Your task to perform on an android device: install app "Speedtest by Ookla" Image 0: 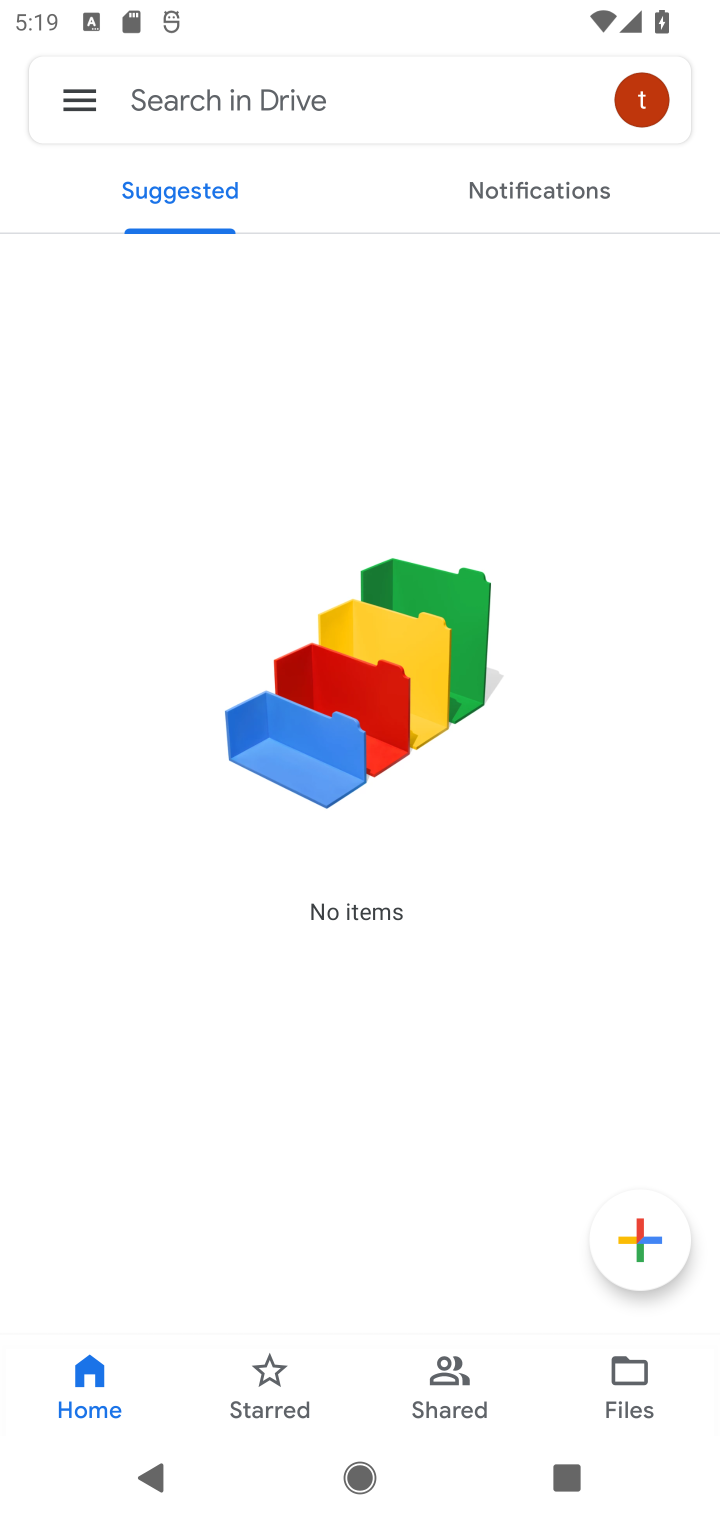
Step 0: press home button
Your task to perform on an android device: install app "Speedtest by Ookla" Image 1: 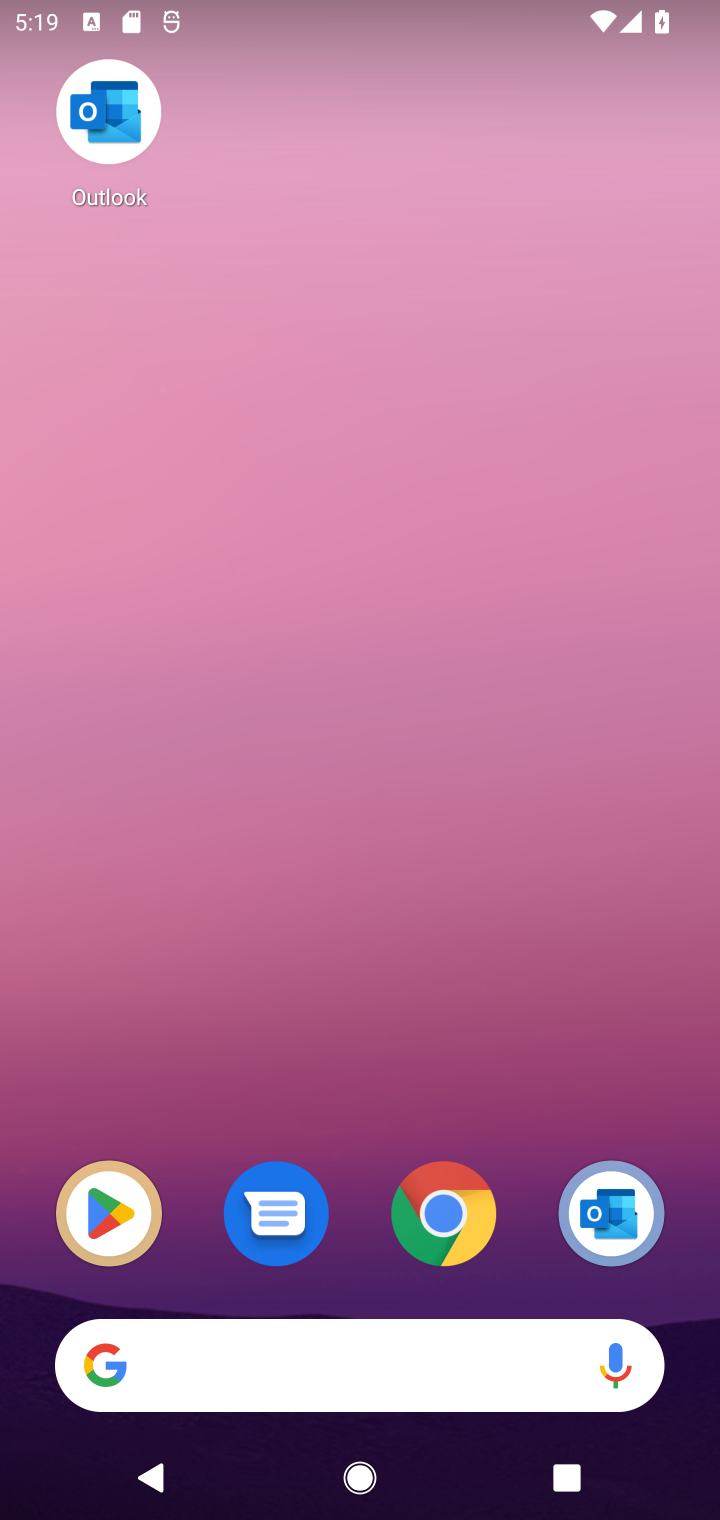
Step 1: drag from (487, 1190) to (638, 160)
Your task to perform on an android device: install app "Speedtest by Ookla" Image 2: 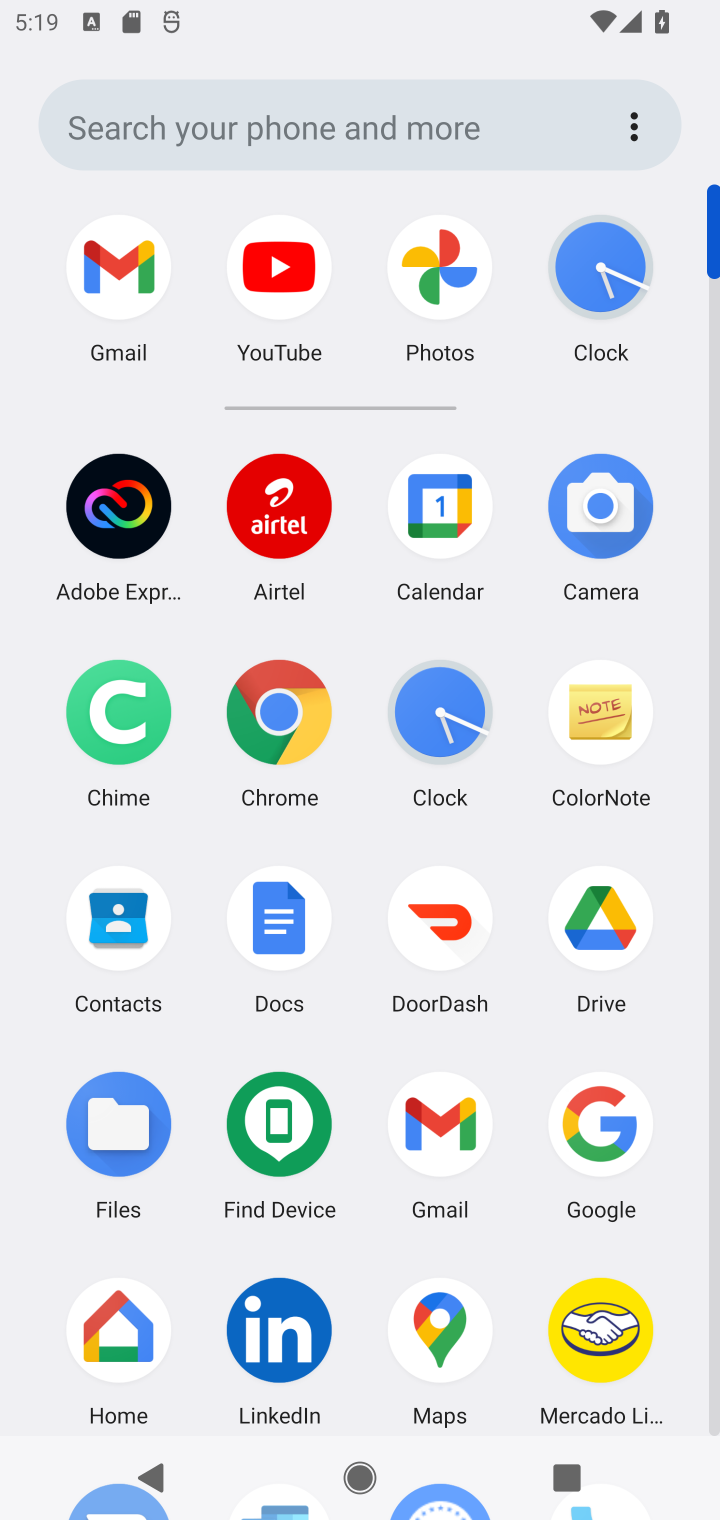
Step 2: drag from (384, 1275) to (390, 855)
Your task to perform on an android device: install app "Speedtest by Ookla" Image 3: 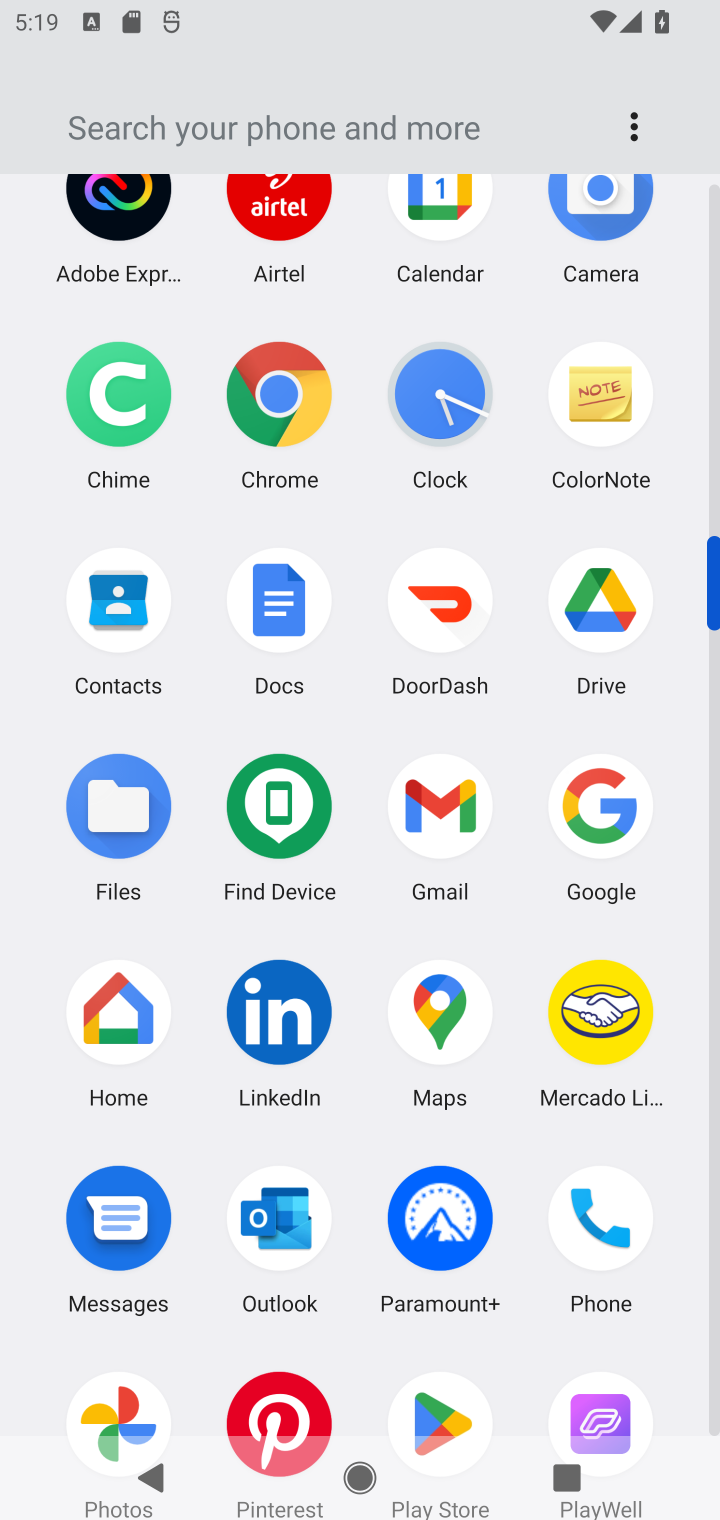
Step 3: click (443, 1405)
Your task to perform on an android device: install app "Speedtest by Ookla" Image 4: 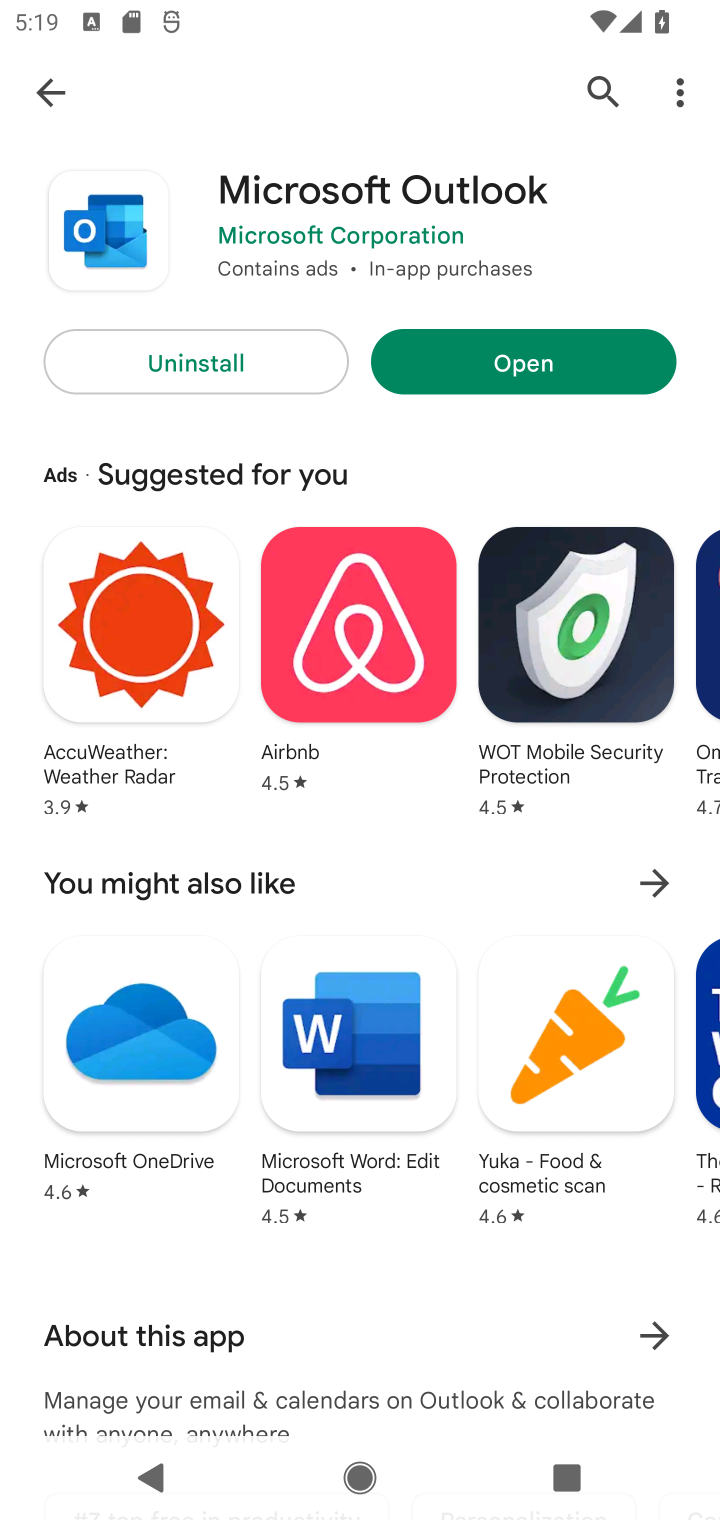
Step 4: click (632, 87)
Your task to perform on an android device: install app "Speedtest by Ookla" Image 5: 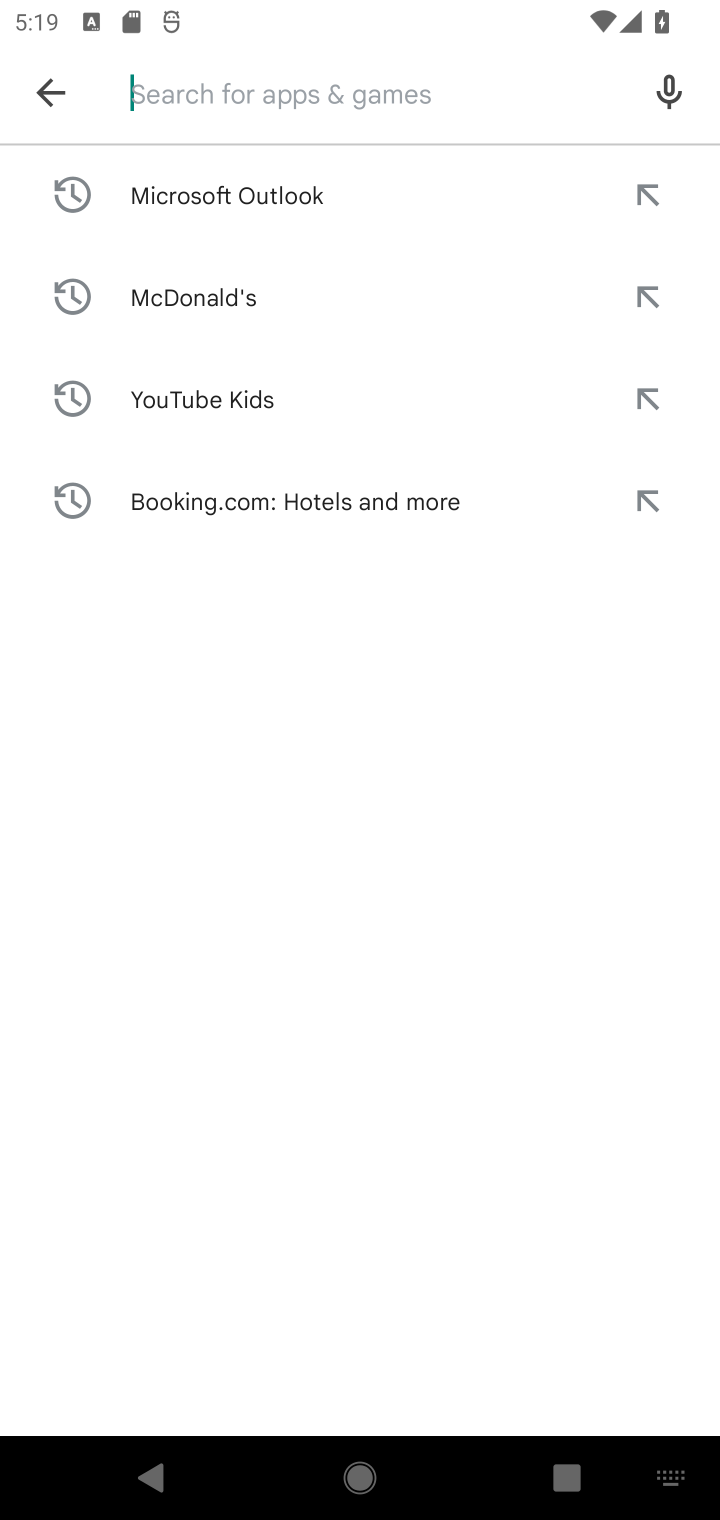
Step 5: type "Speedtest by Ookla"
Your task to perform on an android device: install app "Speedtest by Ookla" Image 6: 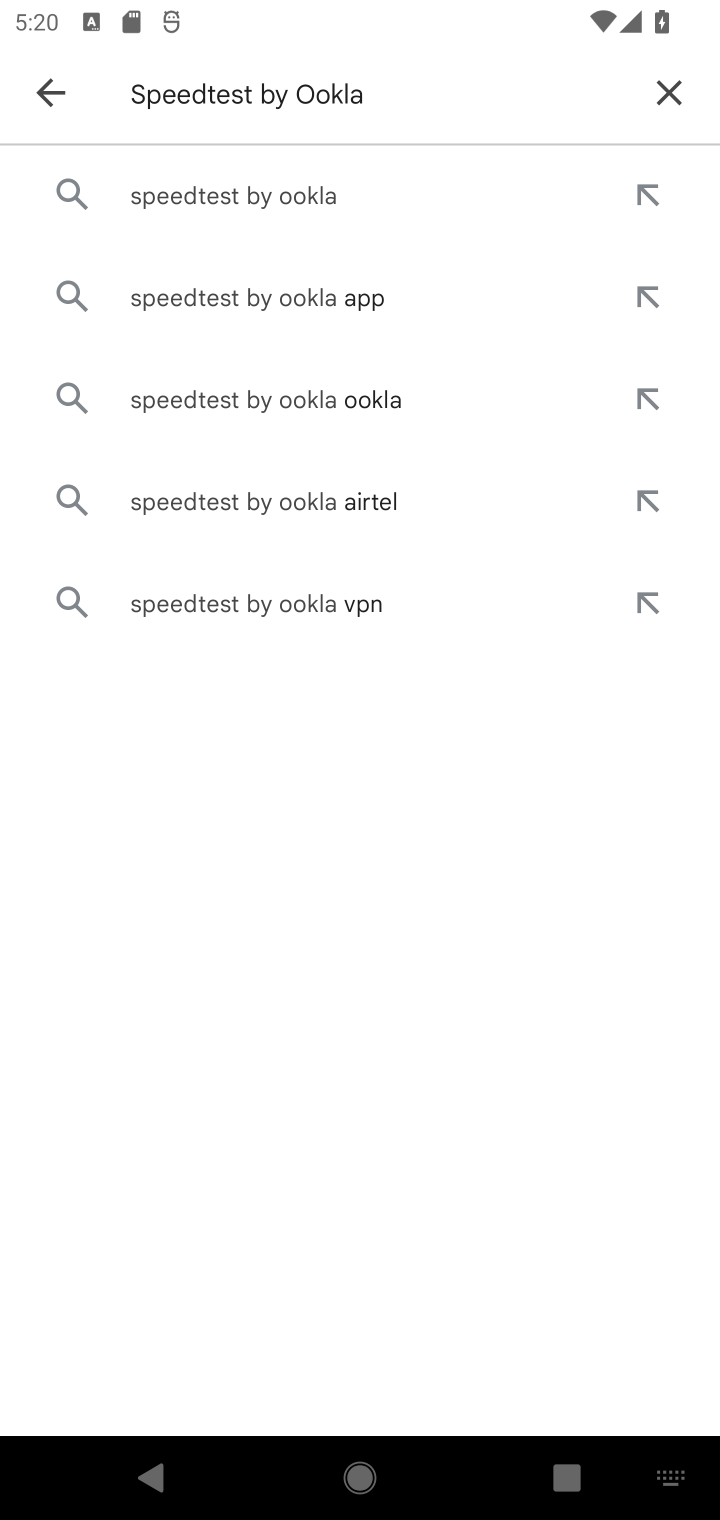
Step 6: press enter
Your task to perform on an android device: install app "Speedtest by Ookla" Image 7: 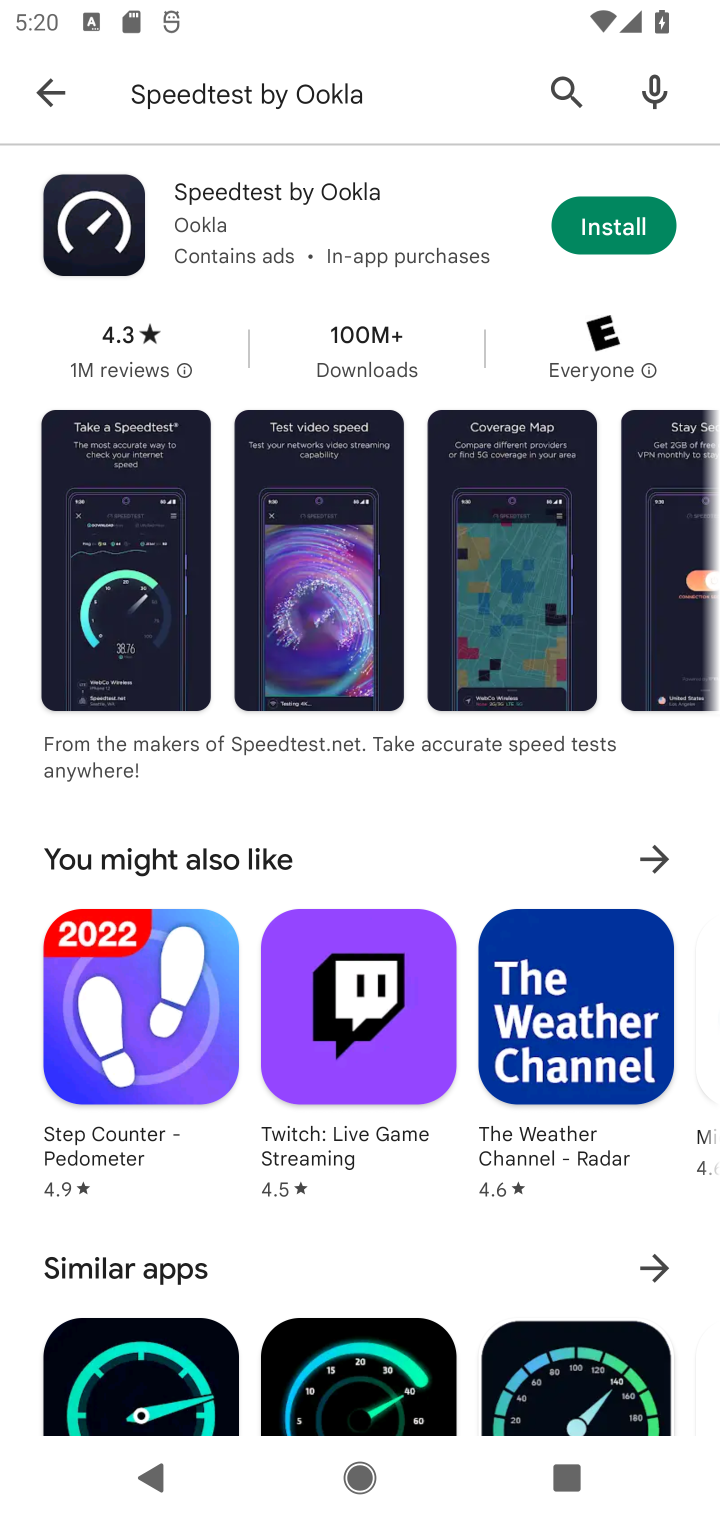
Step 7: click (646, 232)
Your task to perform on an android device: install app "Speedtest by Ookla" Image 8: 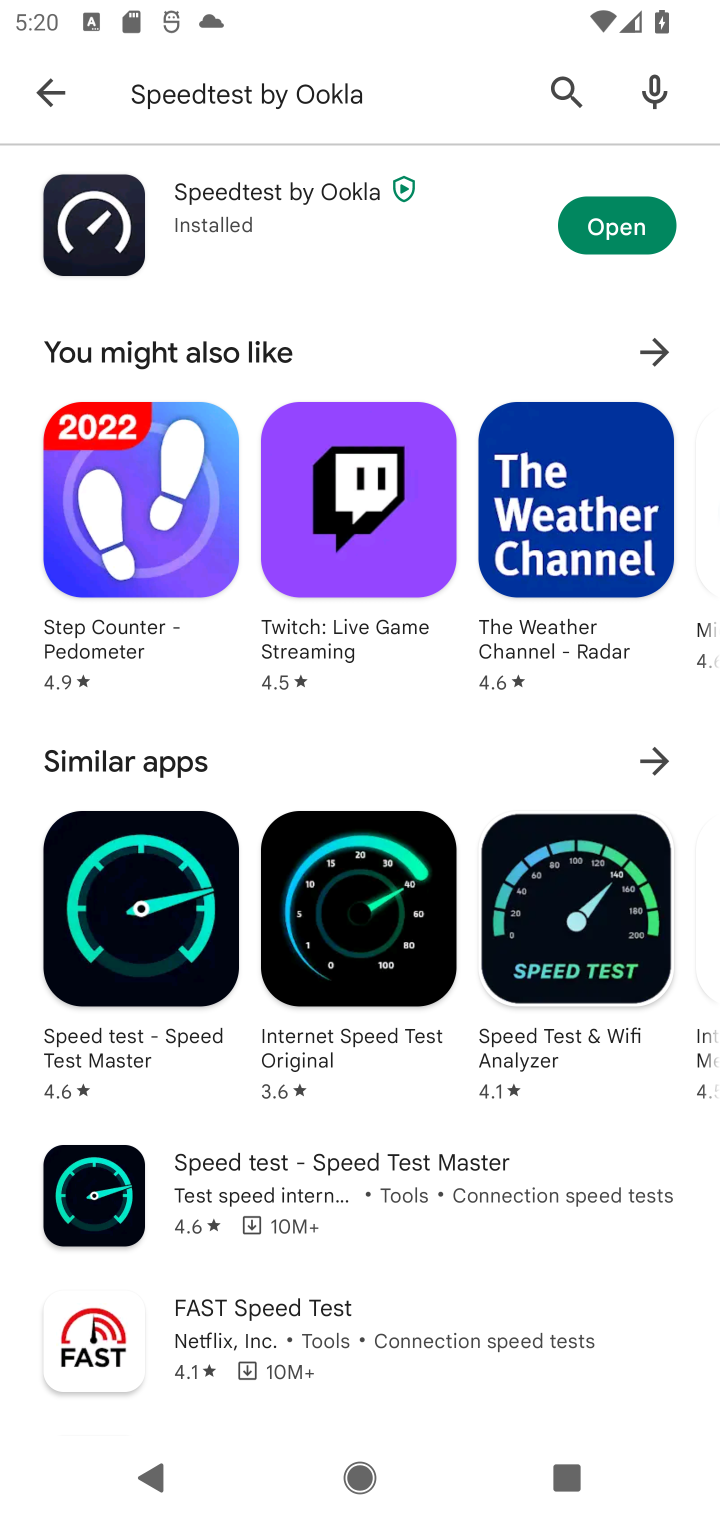
Step 8: task complete